Your task to perform on an android device: set an alarm Image 0: 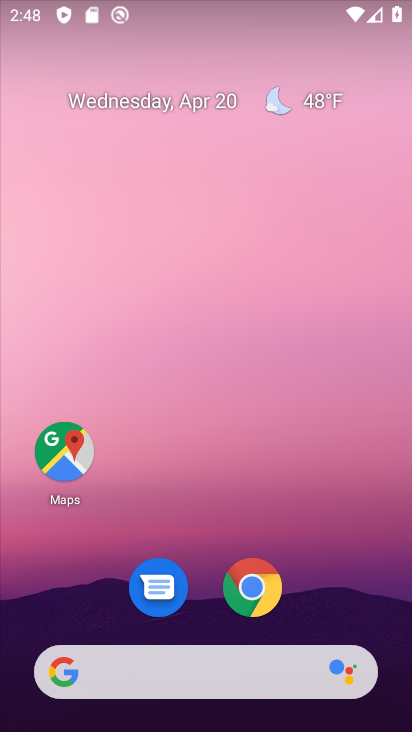
Step 0: drag from (172, 618) to (258, 155)
Your task to perform on an android device: set an alarm Image 1: 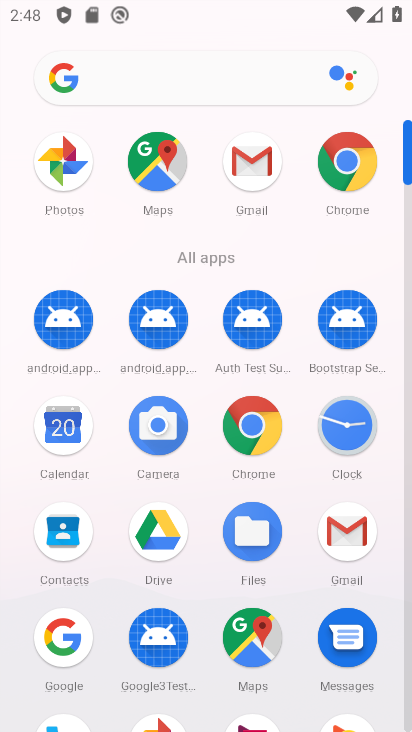
Step 1: click (344, 427)
Your task to perform on an android device: set an alarm Image 2: 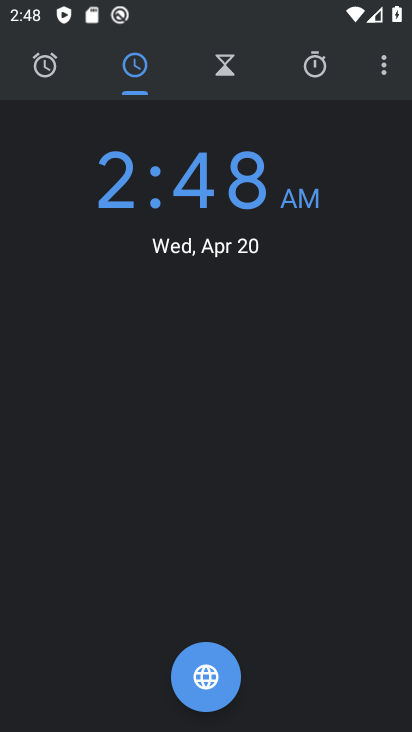
Step 2: click (47, 67)
Your task to perform on an android device: set an alarm Image 3: 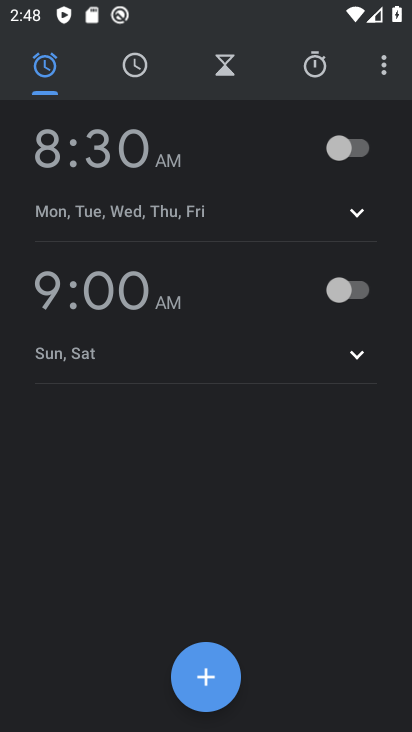
Step 3: click (359, 156)
Your task to perform on an android device: set an alarm Image 4: 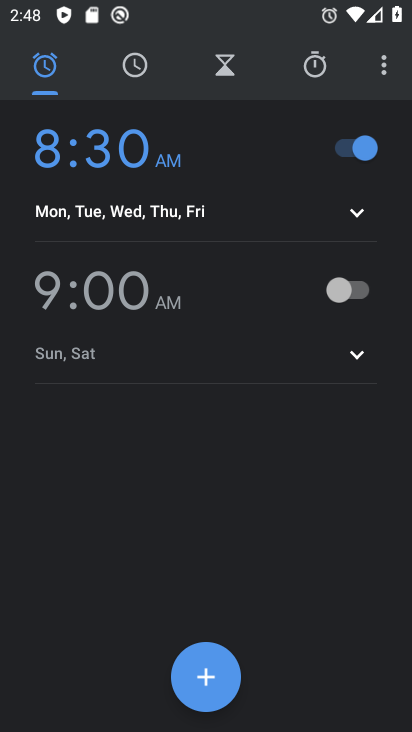
Step 4: task complete